Your task to perform on an android device: Open Maps and search for coffee Image 0: 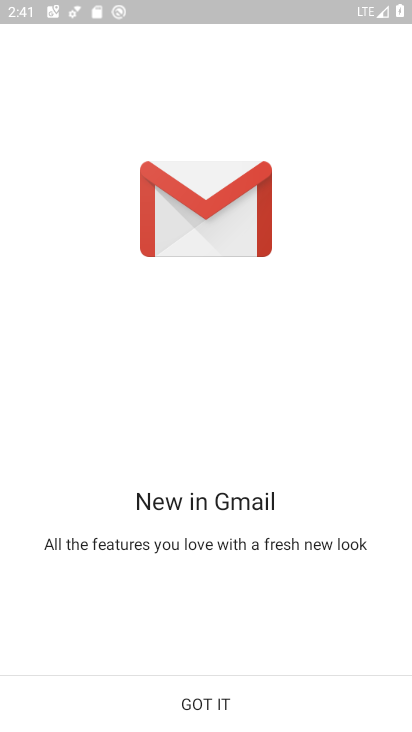
Step 0: press home button
Your task to perform on an android device: Open Maps and search for coffee Image 1: 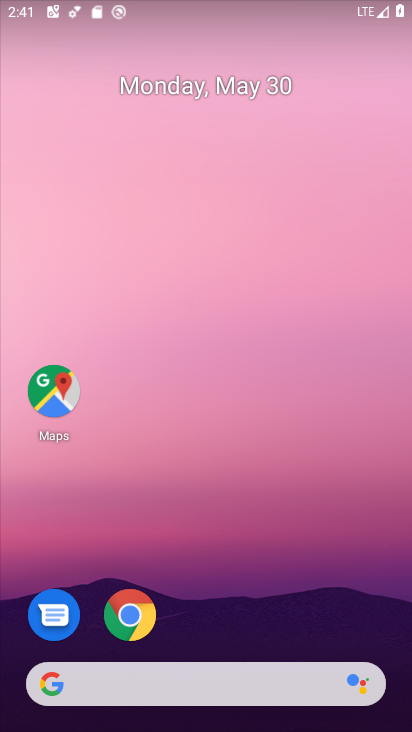
Step 1: click (55, 385)
Your task to perform on an android device: Open Maps and search for coffee Image 2: 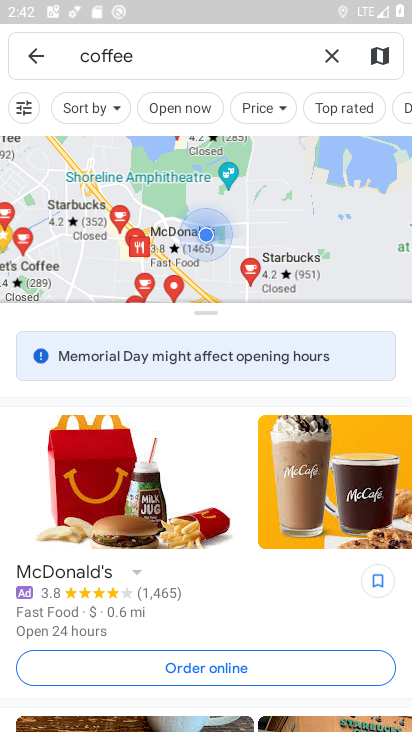
Step 2: task complete